Your task to perform on an android device: install app "Google Translate" Image 0: 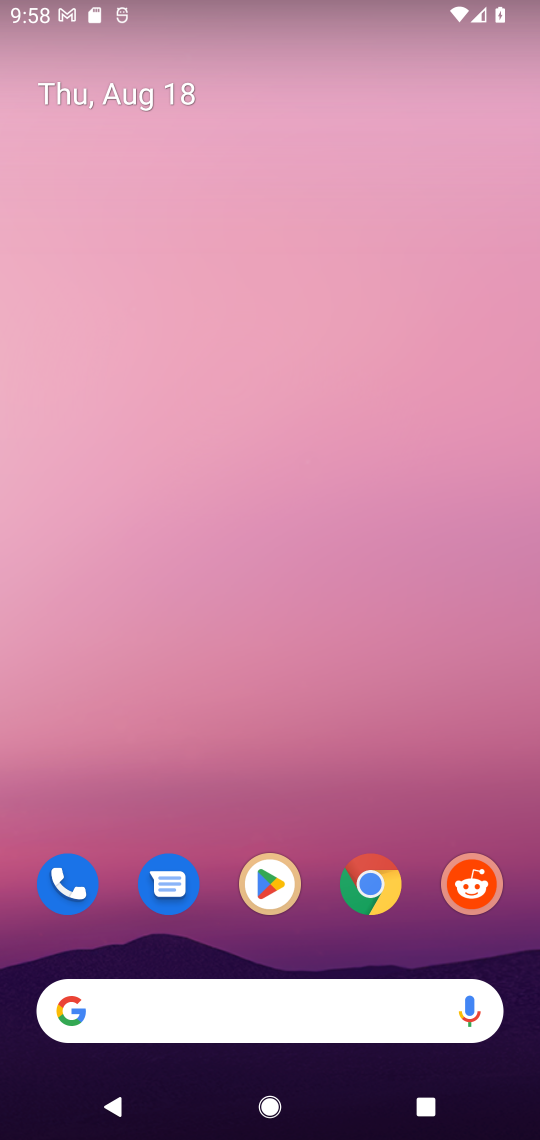
Step 0: click (283, 915)
Your task to perform on an android device: install app "Google Translate" Image 1: 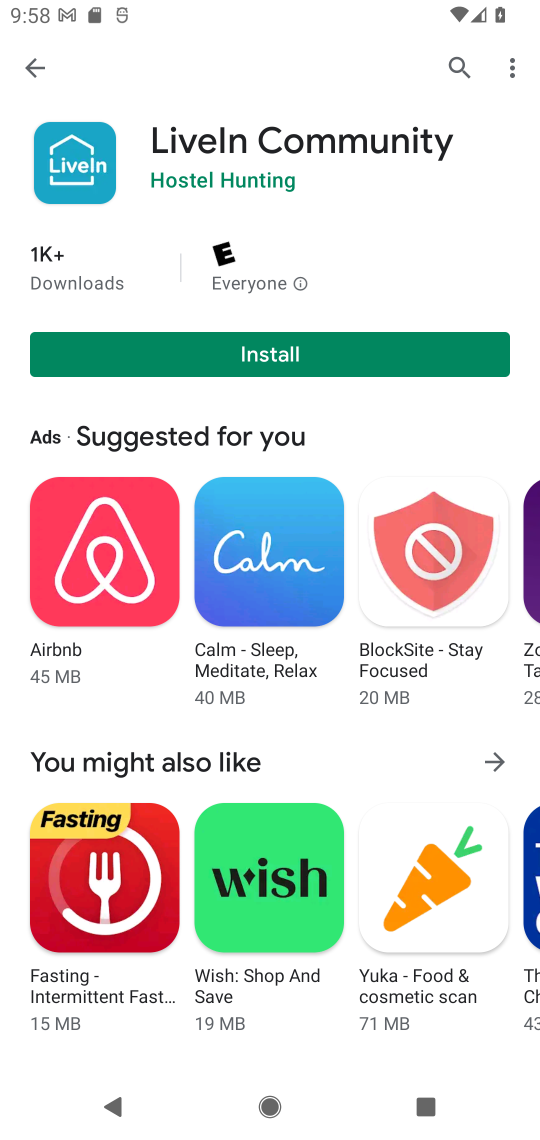
Step 1: click (469, 90)
Your task to perform on an android device: install app "Google Translate" Image 2: 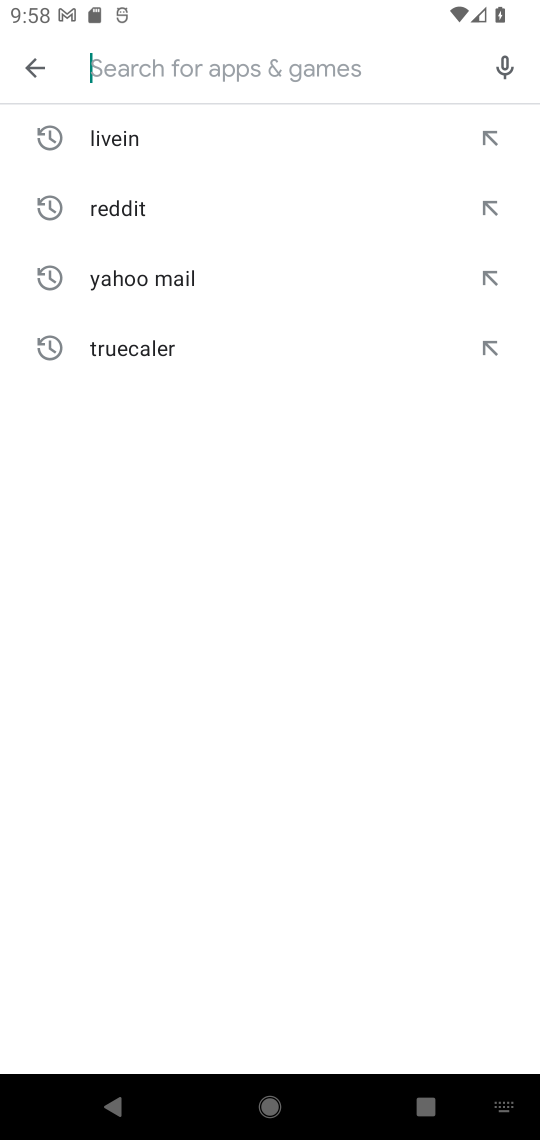
Step 2: type "google translate"
Your task to perform on an android device: install app "Google Translate" Image 3: 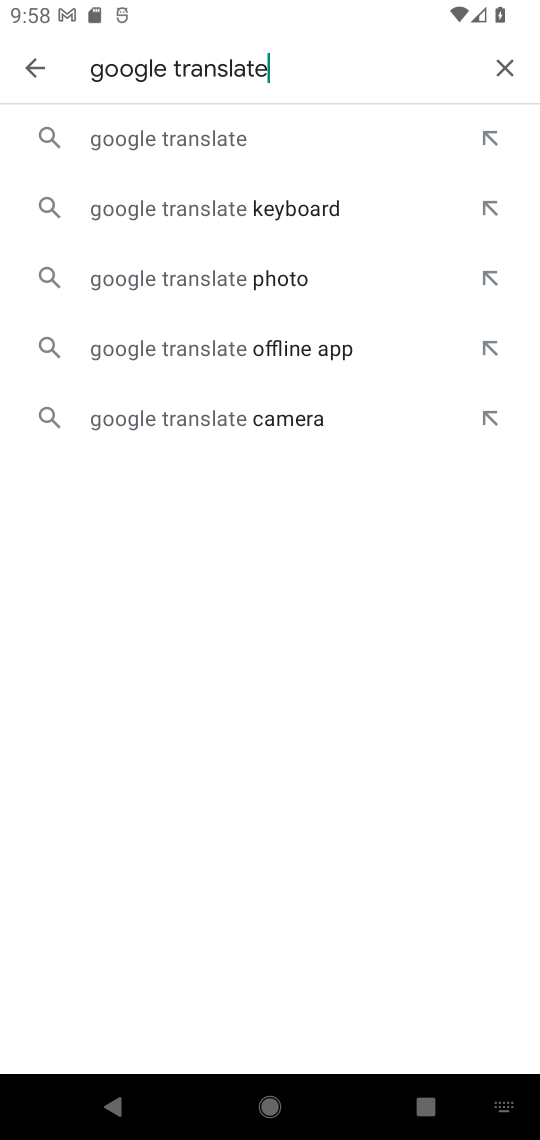
Step 3: click (352, 131)
Your task to perform on an android device: install app "Google Translate" Image 4: 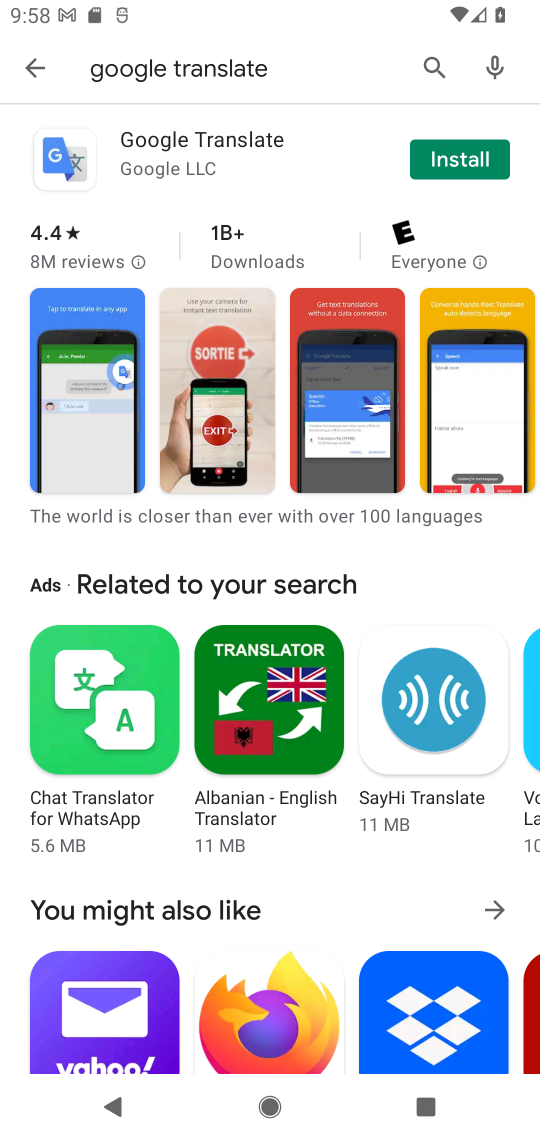
Step 4: click (463, 172)
Your task to perform on an android device: install app "Google Translate" Image 5: 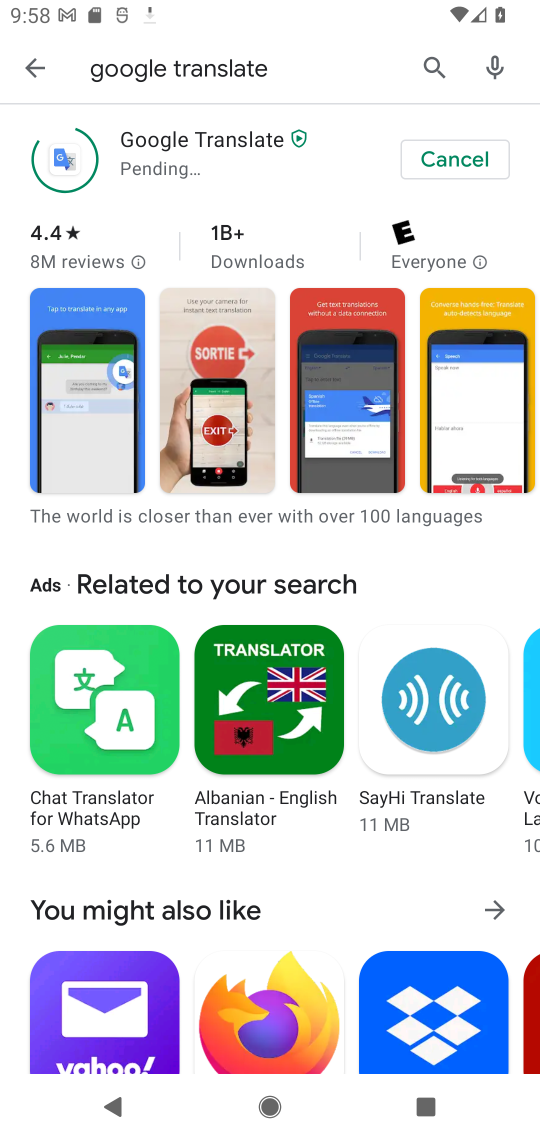
Step 5: task complete